Your task to perform on an android device: Go to battery settings Image 0: 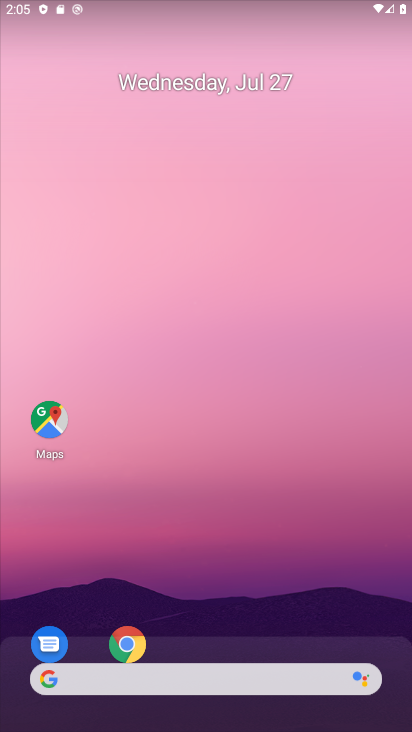
Step 0: drag from (306, 620) to (257, 47)
Your task to perform on an android device: Go to battery settings Image 1: 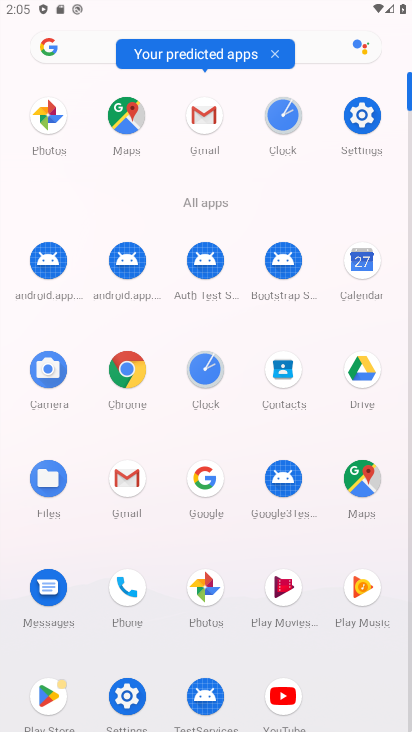
Step 1: click (356, 108)
Your task to perform on an android device: Go to battery settings Image 2: 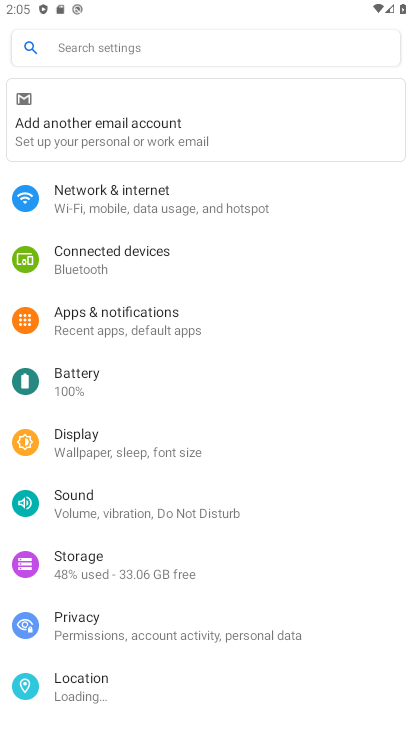
Step 2: drag from (171, 659) to (187, 311)
Your task to perform on an android device: Go to battery settings Image 3: 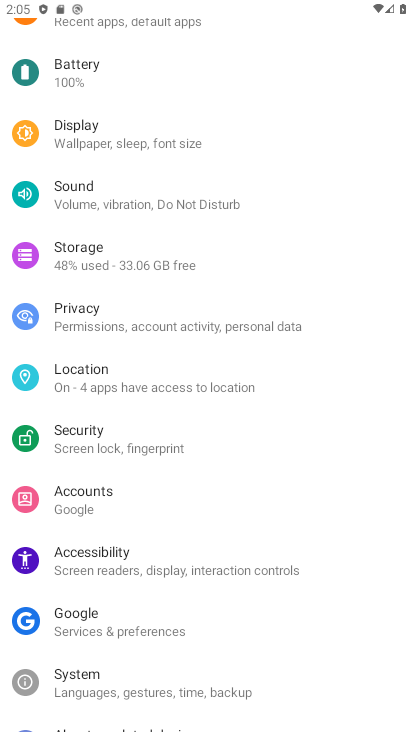
Step 3: click (123, 75)
Your task to perform on an android device: Go to battery settings Image 4: 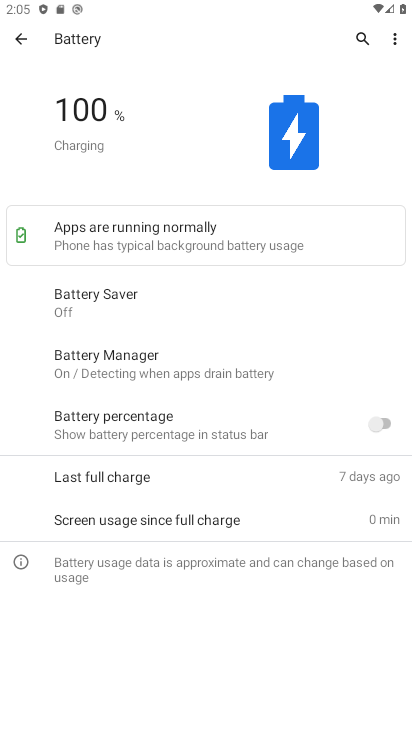
Step 4: task complete